Your task to perform on an android device: What is the recent news? Image 0: 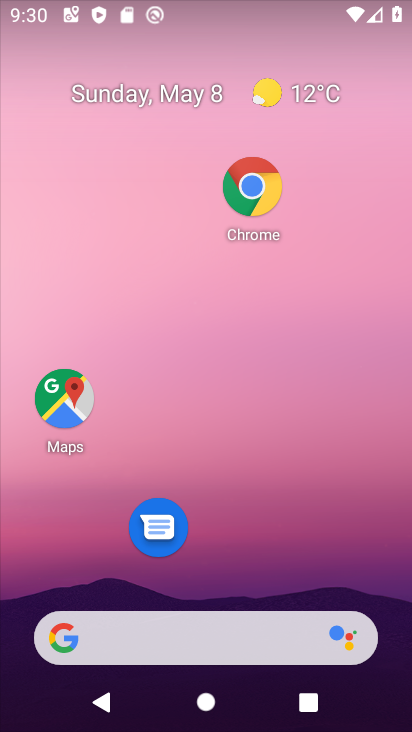
Step 0: drag from (318, 420) to (318, 285)
Your task to perform on an android device: What is the recent news? Image 1: 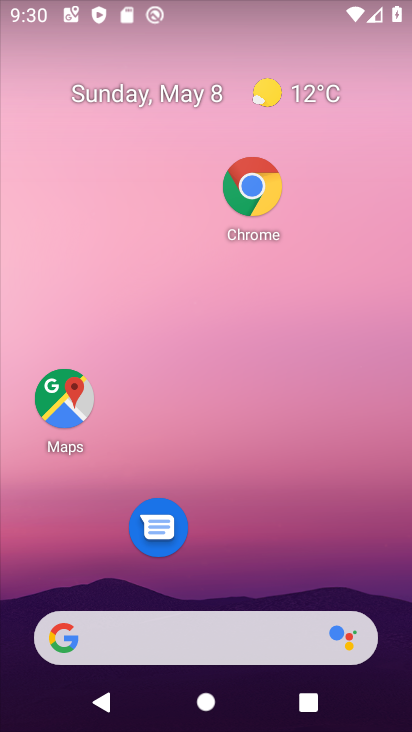
Step 1: drag from (290, 520) to (339, 228)
Your task to perform on an android device: What is the recent news? Image 2: 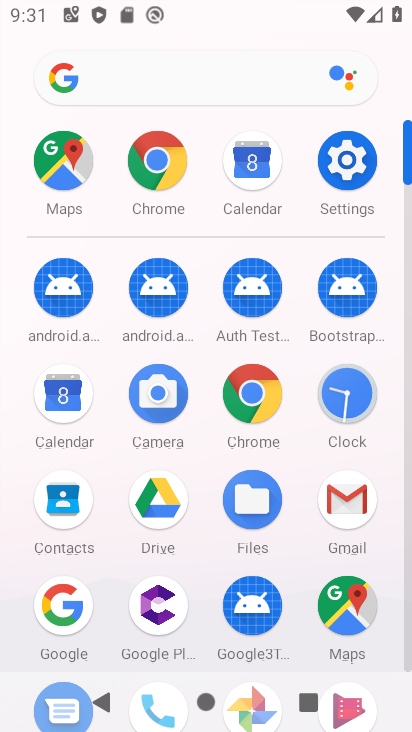
Step 2: click (247, 401)
Your task to perform on an android device: What is the recent news? Image 3: 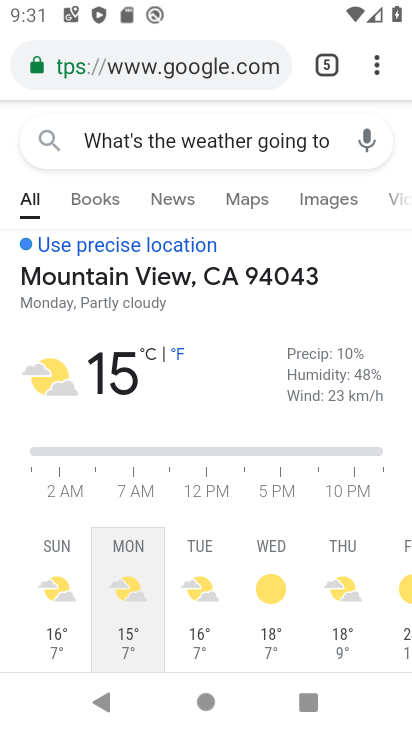
Step 3: click (344, 142)
Your task to perform on an android device: What is the recent news? Image 4: 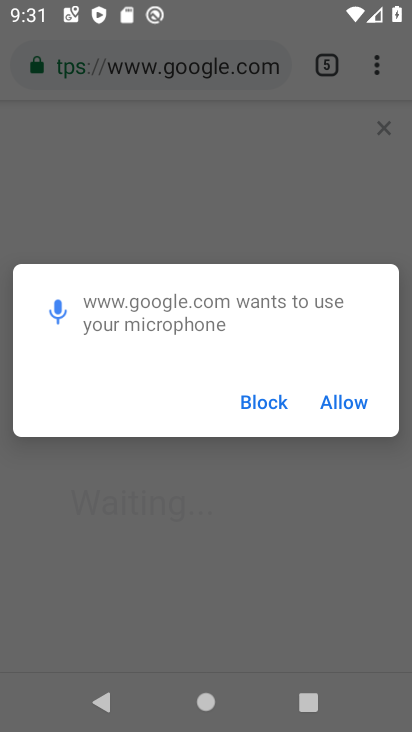
Step 4: click (349, 415)
Your task to perform on an android device: What is the recent news? Image 5: 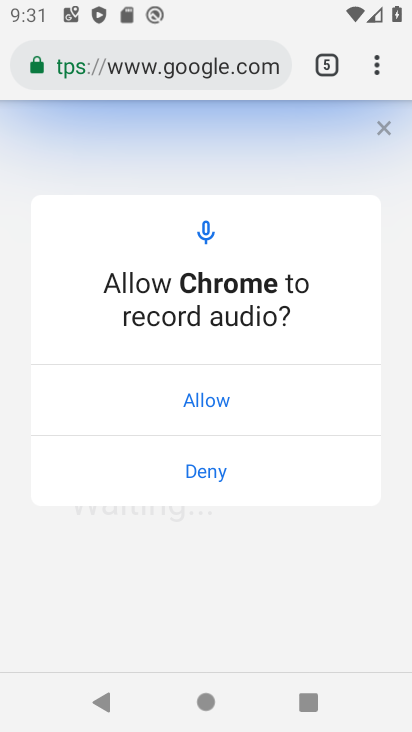
Step 5: click (363, 61)
Your task to perform on an android device: What is the recent news? Image 6: 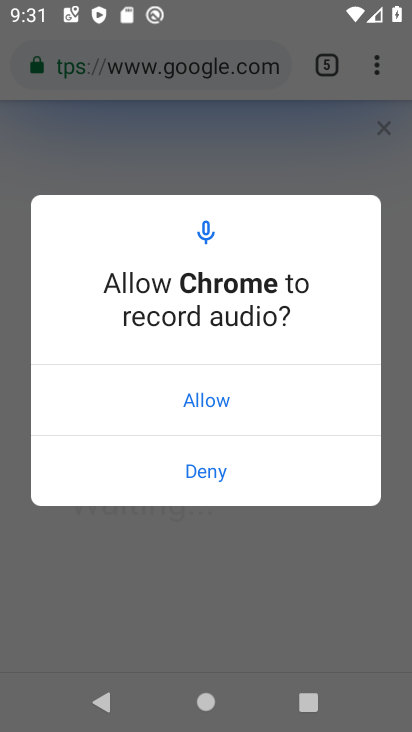
Step 6: click (193, 472)
Your task to perform on an android device: What is the recent news? Image 7: 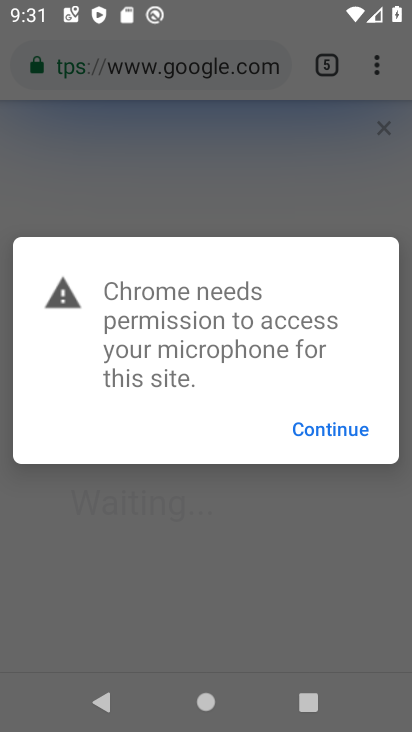
Step 7: click (367, 60)
Your task to perform on an android device: What is the recent news? Image 8: 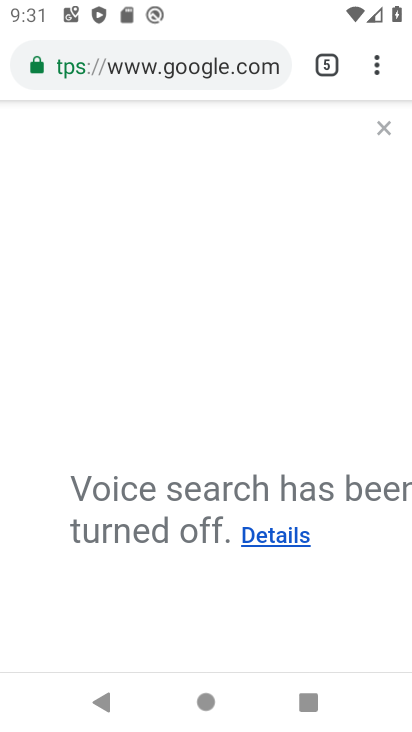
Step 8: click (356, 71)
Your task to perform on an android device: What is the recent news? Image 9: 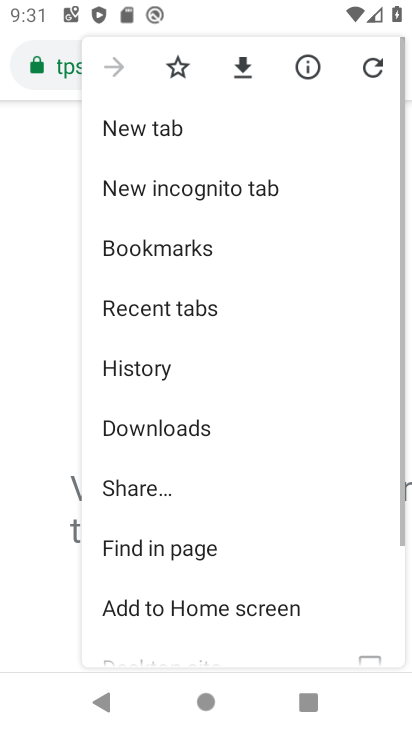
Step 9: click (160, 126)
Your task to perform on an android device: What is the recent news? Image 10: 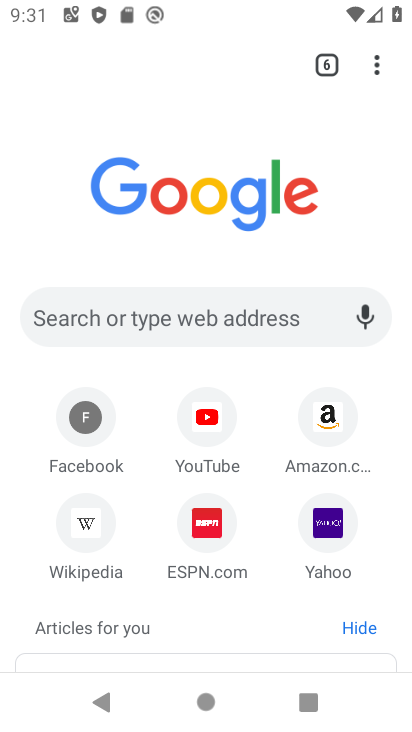
Step 10: click (194, 299)
Your task to perform on an android device: What is the recent news? Image 11: 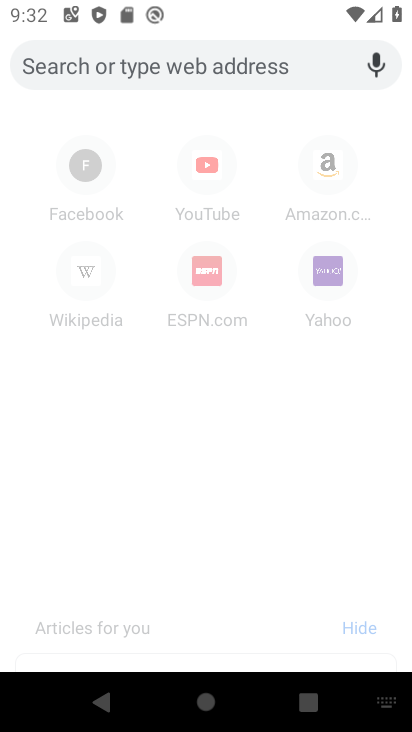
Step 11: click (203, 59)
Your task to perform on an android device: What is the recent news? Image 12: 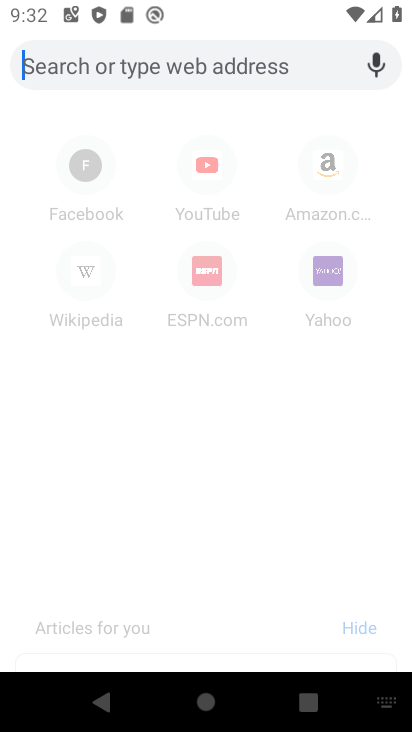
Step 12: type "What is the recent news?"
Your task to perform on an android device: What is the recent news? Image 13: 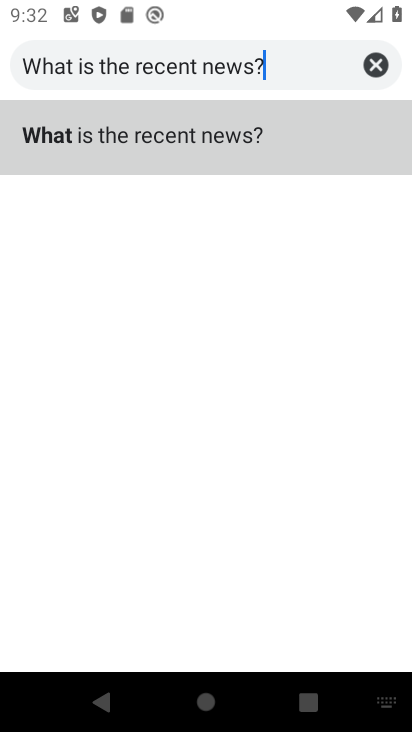
Step 13: click (222, 136)
Your task to perform on an android device: What is the recent news? Image 14: 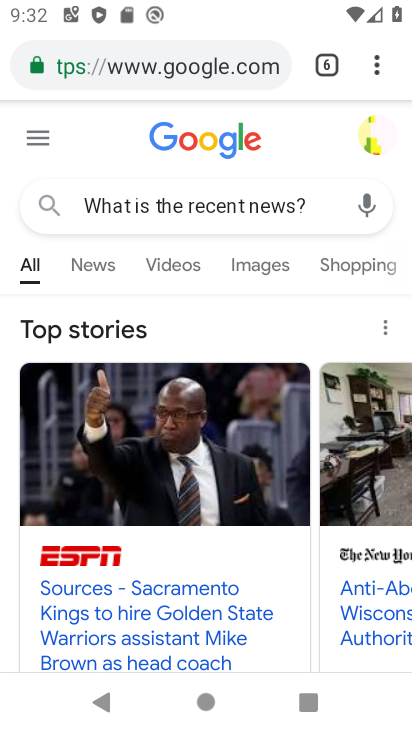
Step 14: task complete